Your task to perform on an android device: turn pop-ups on in chrome Image 0: 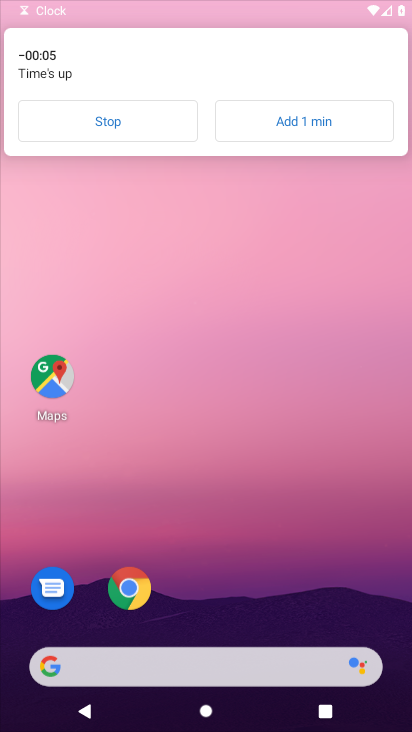
Step 0: click (144, 114)
Your task to perform on an android device: turn pop-ups on in chrome Image 1: 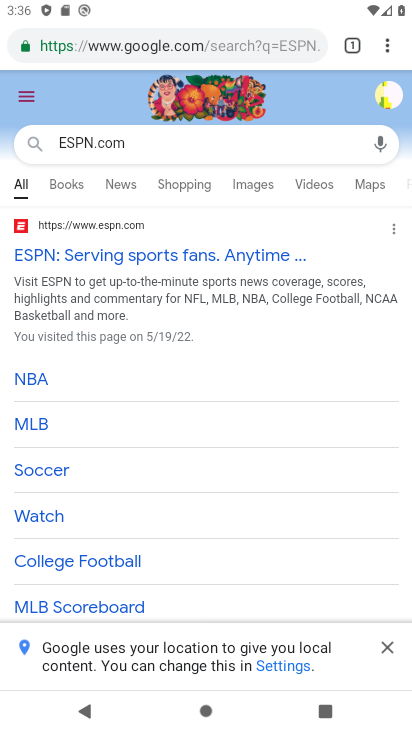
Step 1: press home button
Your task to perform on an android device: turn pop-ups on in chrome Image 2: 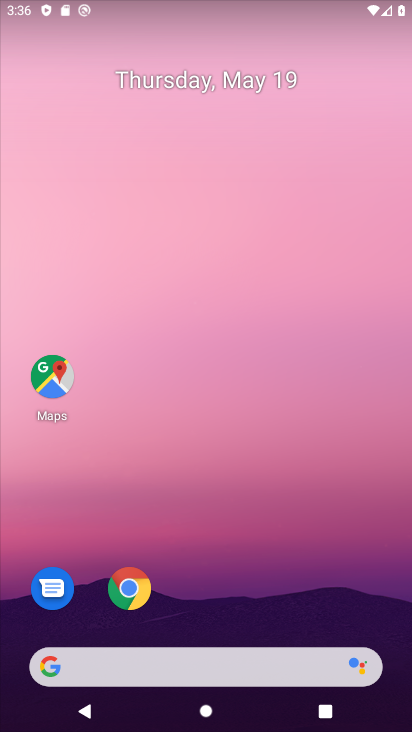
Step 2: click (126, 586)
Your task to perform on an android device: turn pop-ups on in chrome Image 3: 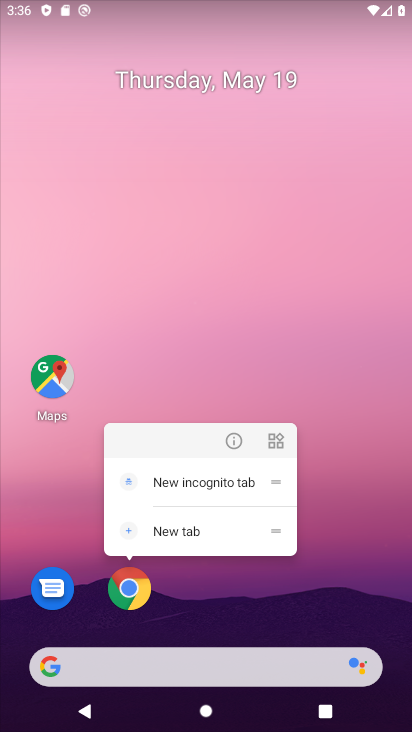
Step 3: click (128, 586)
Your task to perform on an android device: turn pop-ups on in chrome Image 4: 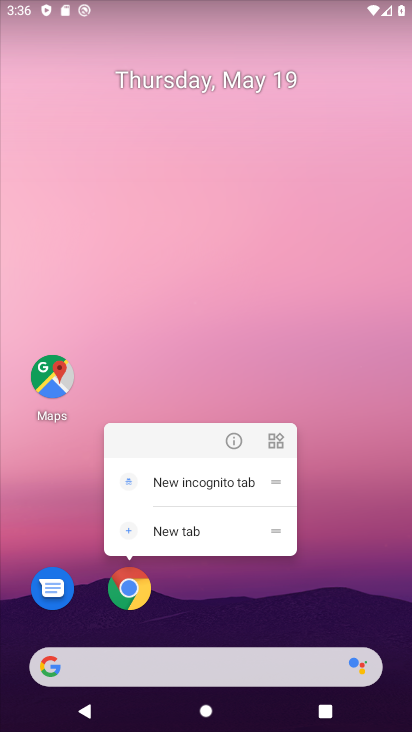
Step 4: click (128, 583)
Your task to perform on an android device: turn pop-ups on in chrome Image 5: 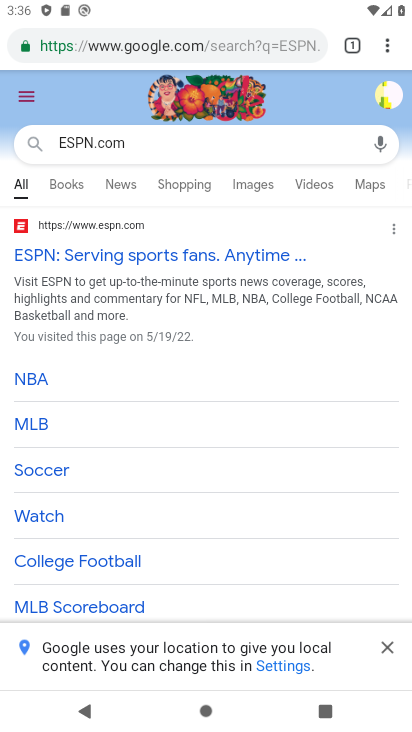
Step 5: click (391, 44)
Your task to perform on an android device: turn pop-ups on in chrome Image 6: 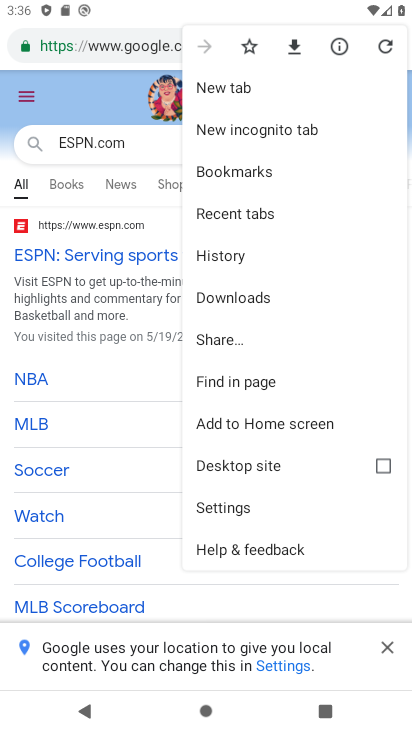
Step 6: click (238, 507)
Your task to perform on an android device: turn pop-ups on in chrome Image 7: 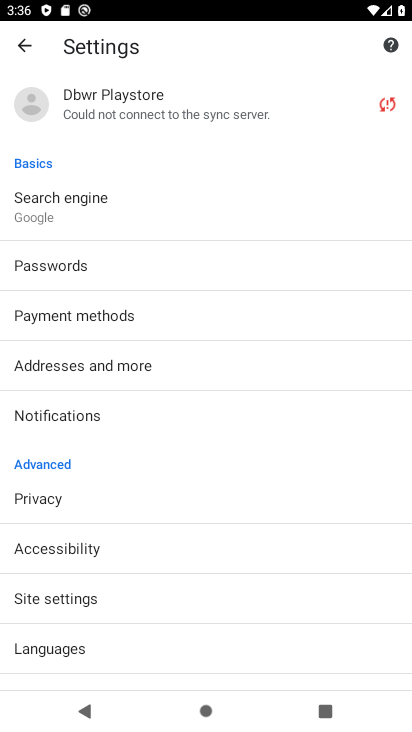
Step 7: drag from (96, 581) to (130, 382)
Your task to perform on an android device: turn pop-ups on in chrome Image 8: 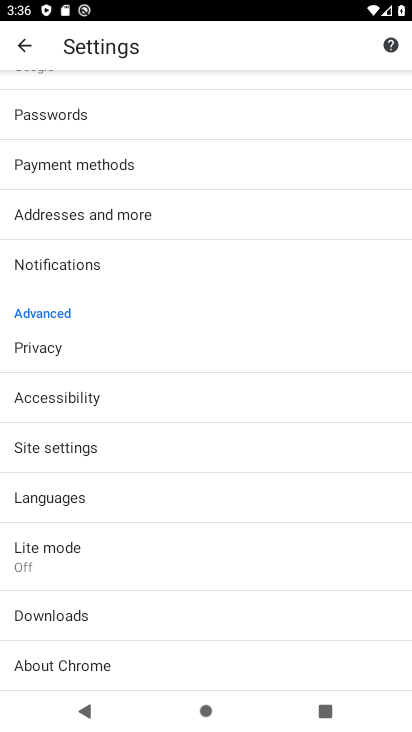
Step 8: click (70, 451)
Your task to perform on an android device: turn pop-ups on in chrome Image 9: 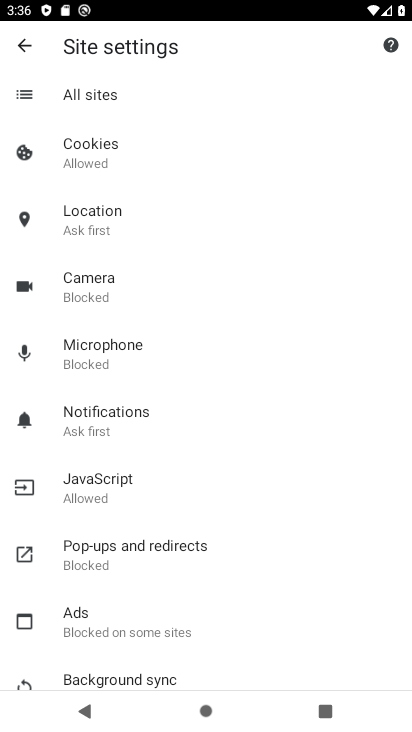
Step 9: click (140, 553)
Your task to perform on an android device: turn pop-ups on in chrome Image 10: 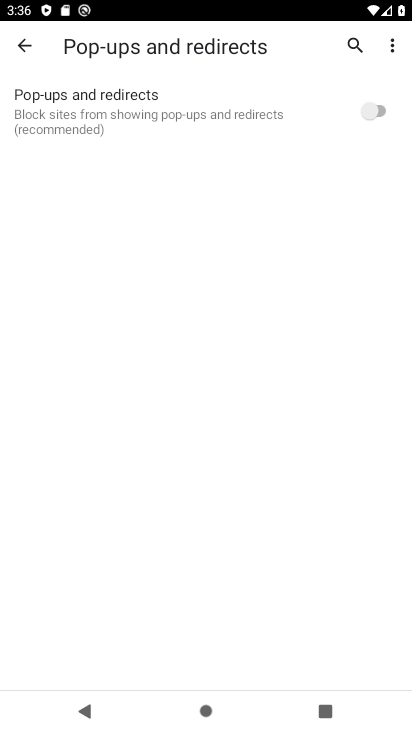
Step 10: click (377, 115)
Your task to perform on an android device: turn pop-ups on in chrome Image 11: 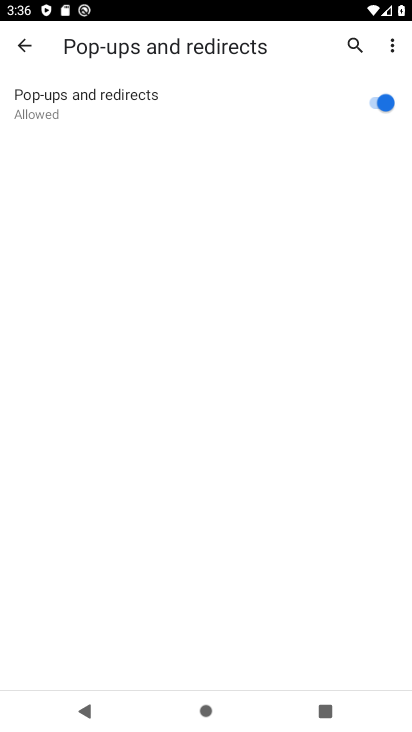
Step 11: task complete